Your task to perform on an android device: change keyboard looks Image 0: 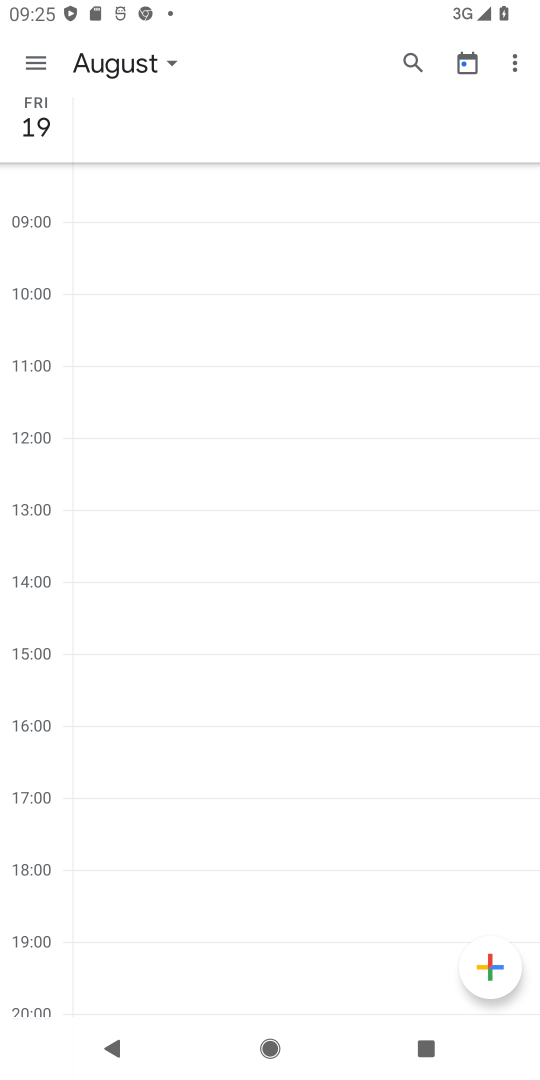
Step 0: press home button
Your task to perform on an android device: change keyboard looks Image 1: 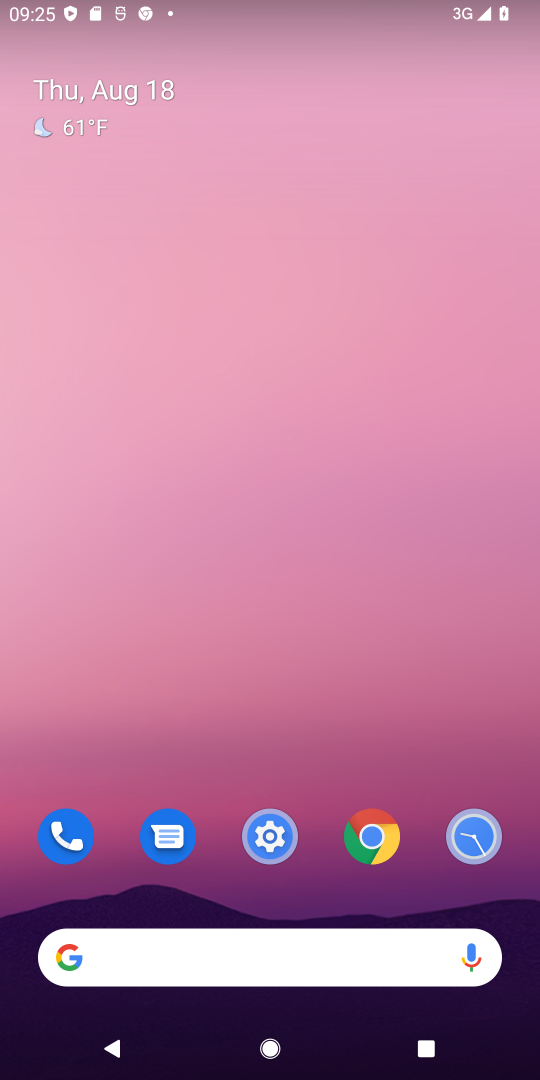
Step 1: drag from (413, 776) to (368, 137)
Your task to perform on an android device: change keyboard looks Image 2: 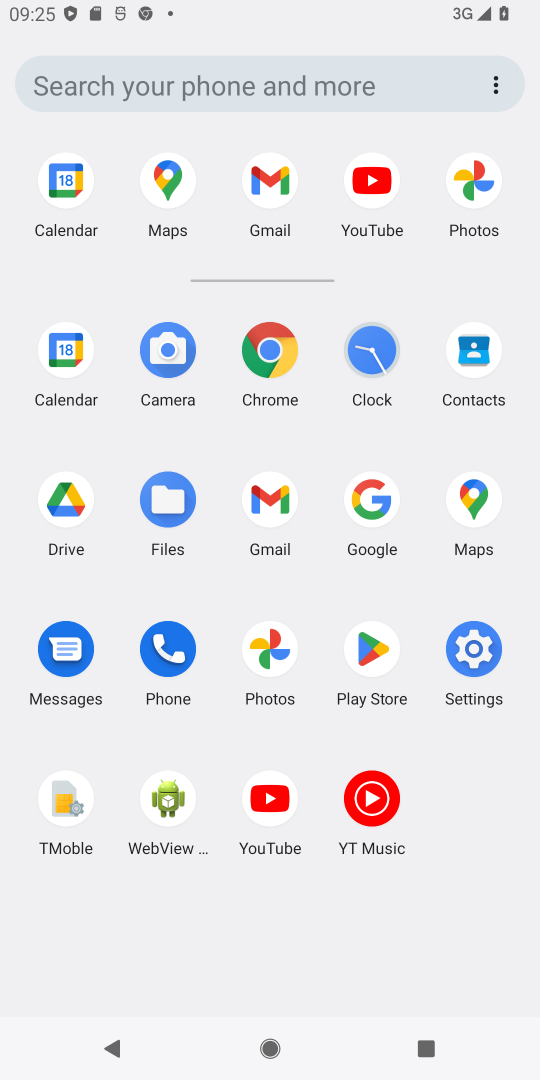
Step 2: click (485, 651)
Your task to perform on an android device: change keyboard looks Image 3: 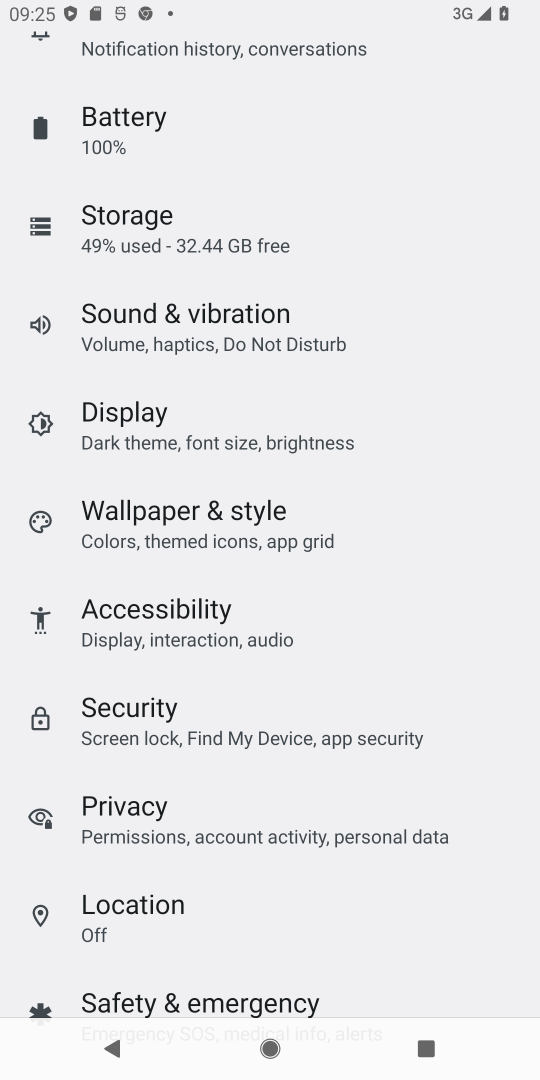
Step 3: drag from (298, 920) to (370, 348)
Your task to perform on an android device: change keyboard looks Image 4: 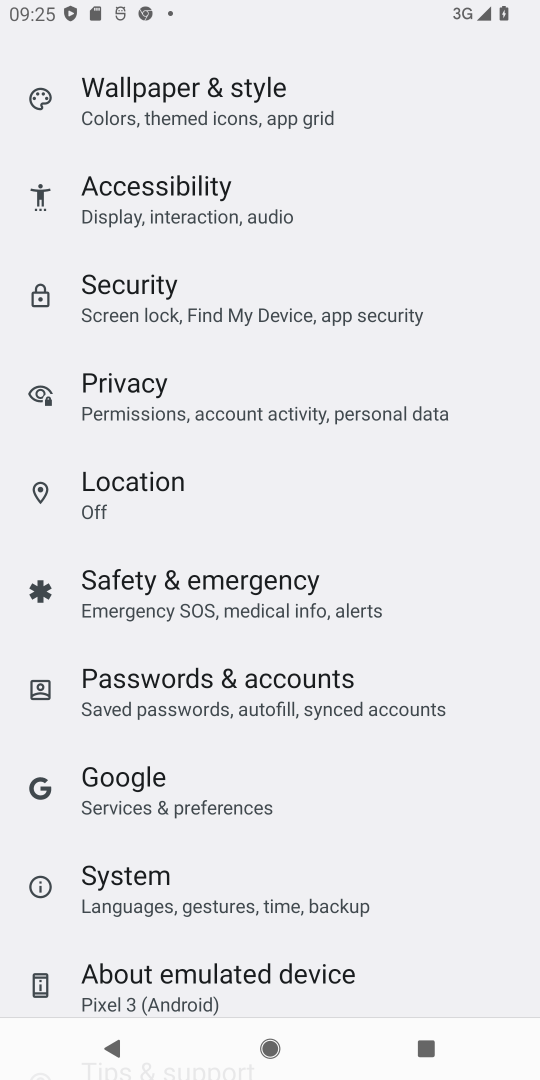
Step 4: click (302, 883)
Your task to perform on an android device: change keyboard looks Image 5: 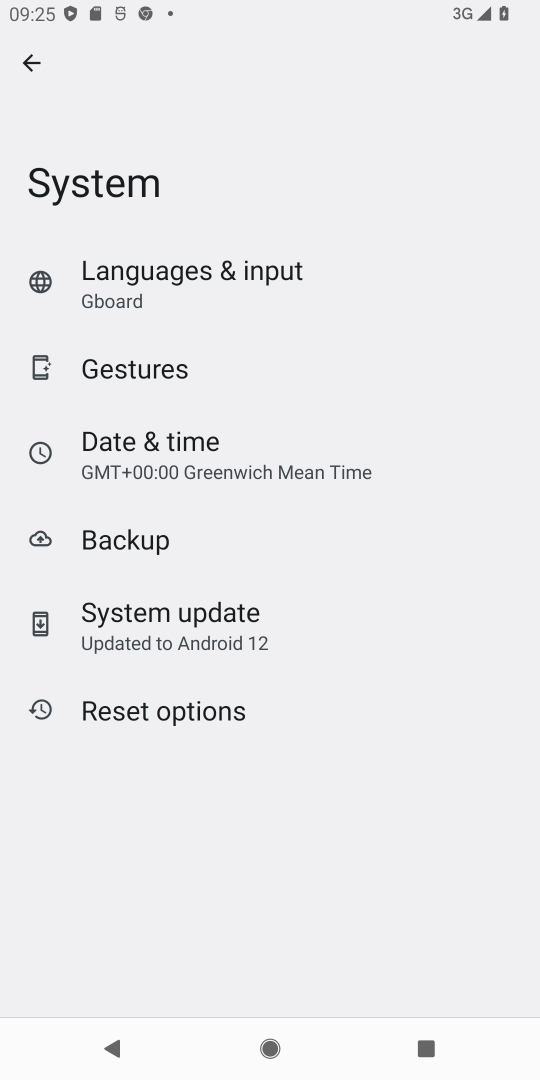
Step 5: click (268, 269)
Your task to perform on an android device: change keyboard looks Image 6: 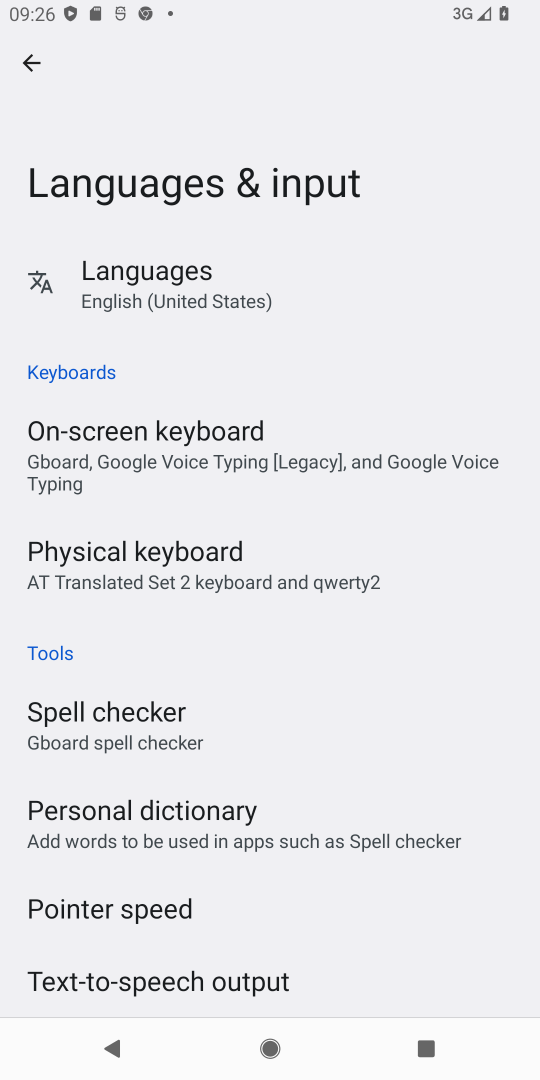
Step 6: click (230, 443)
Your task to perform on an android device: change keyboard looks Image 7: 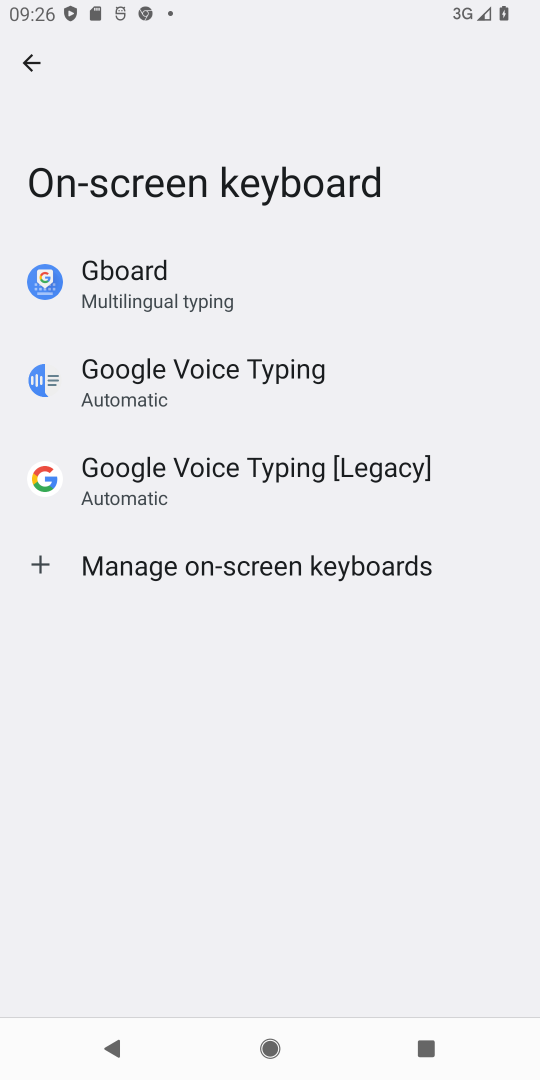
Step 7: click (196, 305)
Your task to perform on an android device: change keyboard looks Image 8: 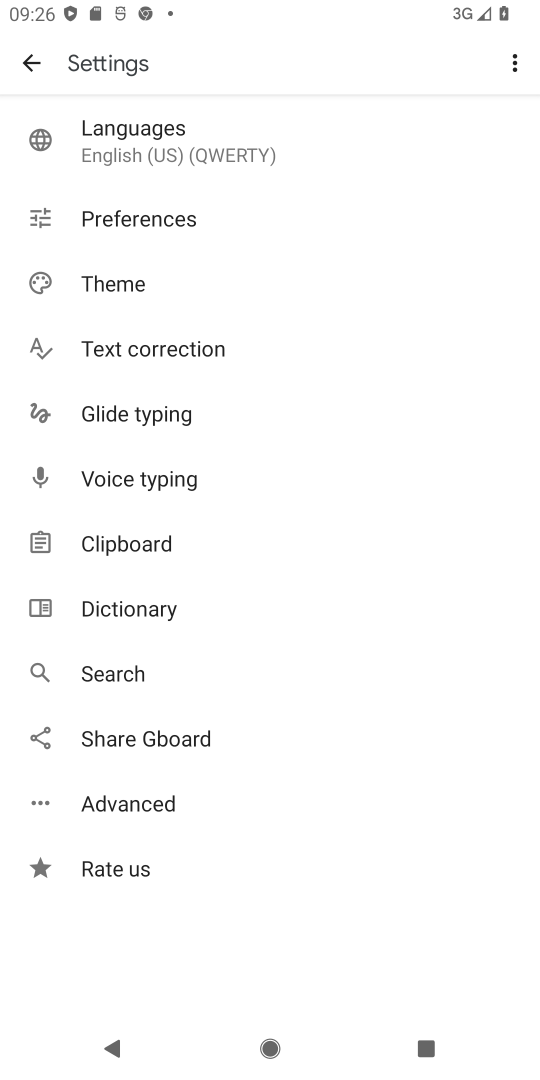
Step 8: click (145, 307)
Your task to perform on an android device: change keyboard looks Image 9: 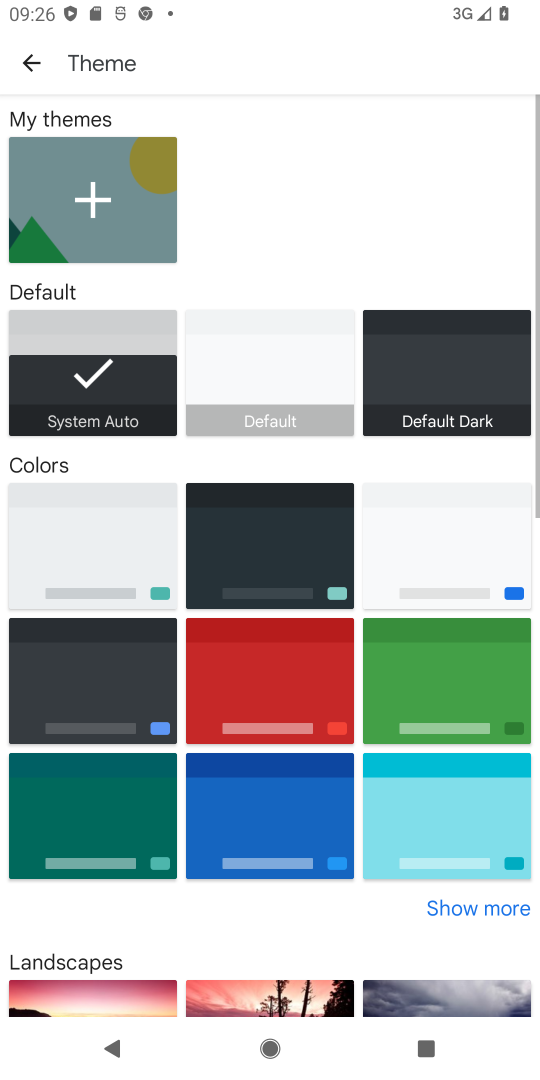
Step 9: click (523, 378)
Your task to perform on an android device: change keyboard looks Image 10: 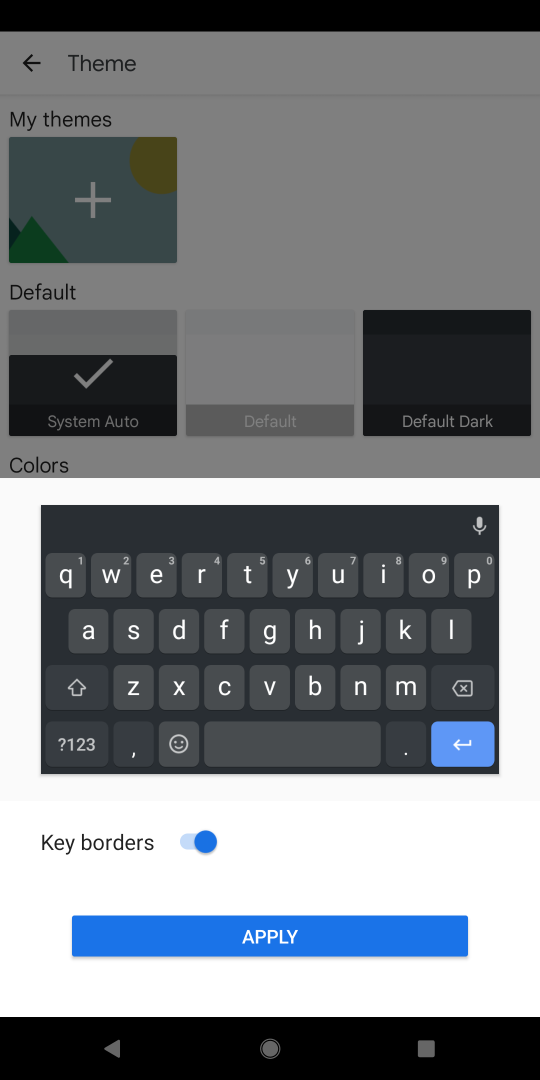
Step 10: click (264, 930)
Your task to perform on an android device: change keyboard looks Image 11: 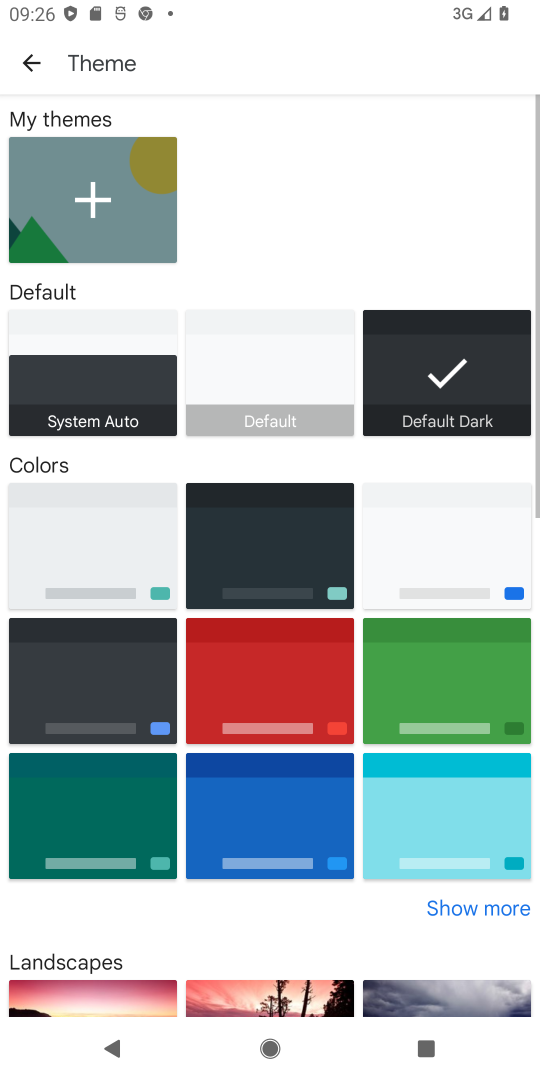
Step 11: task complete